Your task to perform on an android device: change the upload size in google photos Image 0: 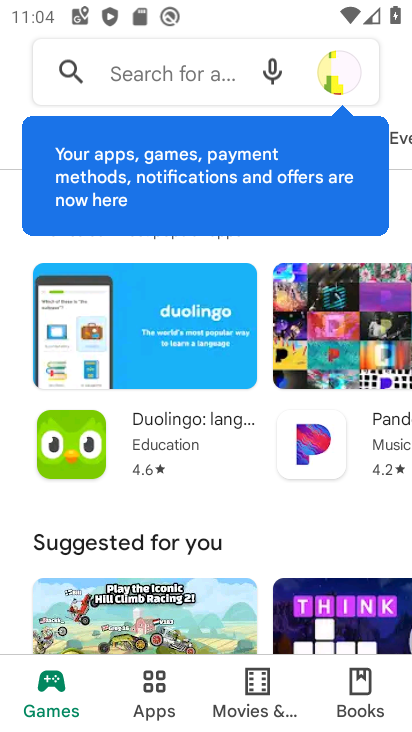
Step 0: press home button
Your task to perform on an android device: change the upload size in google photos Image 1: 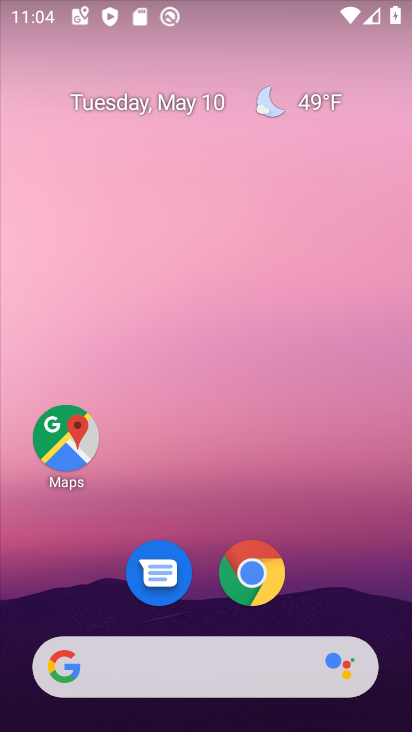
Step 1: drag from (208, 720) to (216, 196)
Your task to perform on an android device: change the upload size in google photos Image 2: 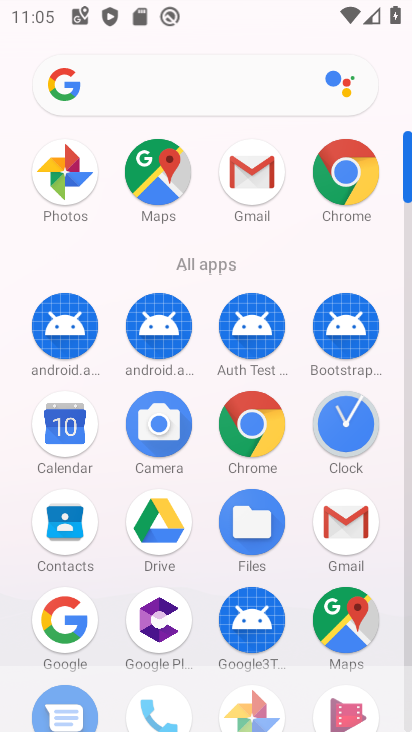
Step 2: click (59, 170)
Your task to perform on an android device: change the upload size in google photos Image 3: 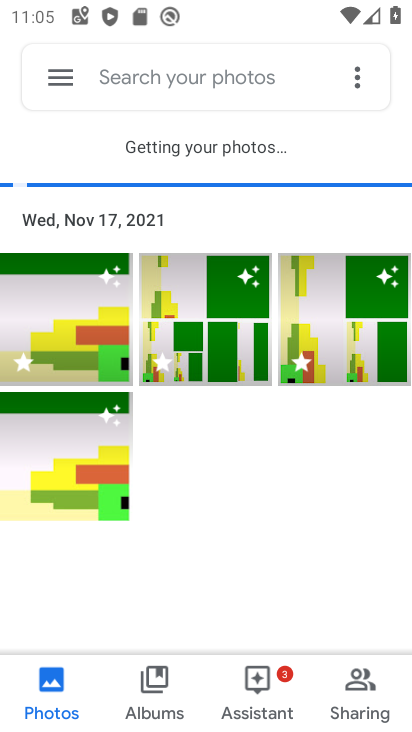
Step 3: click (56, 73)
Your task to perform on an android device: change the upload size in google photos Image 4: 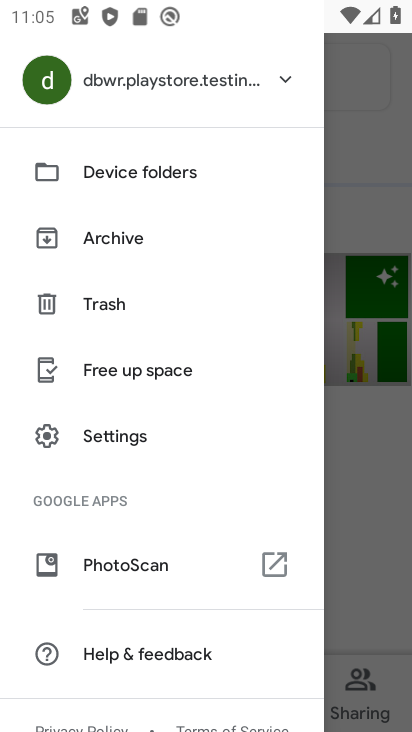
Step 4: click (101, 436)
Your task to perform on an android device: change the upload size in google photos Image 5: 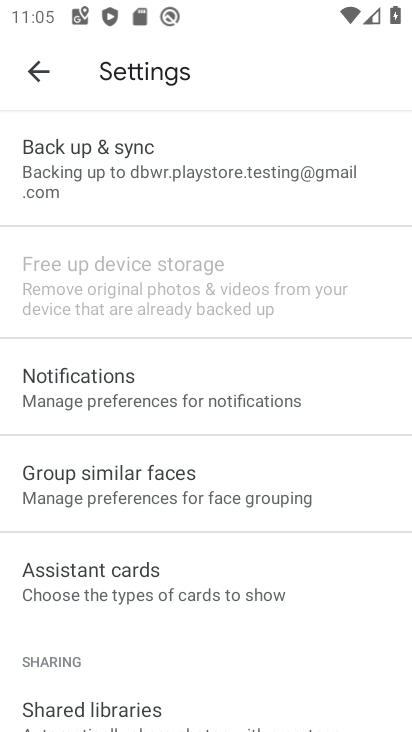
Step 5: click (74, 152)
Your task to perform on an android device: change the upload size in google photos Image 6: 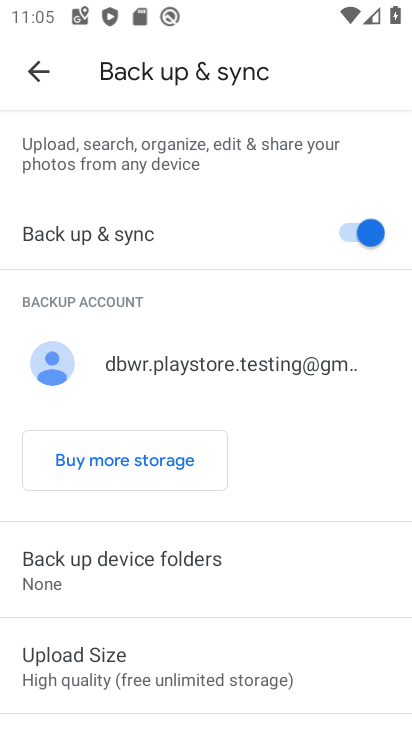
Step 6: click (93, 667)
Your task to perform on an android device: change the upload size in google photos Image 7: 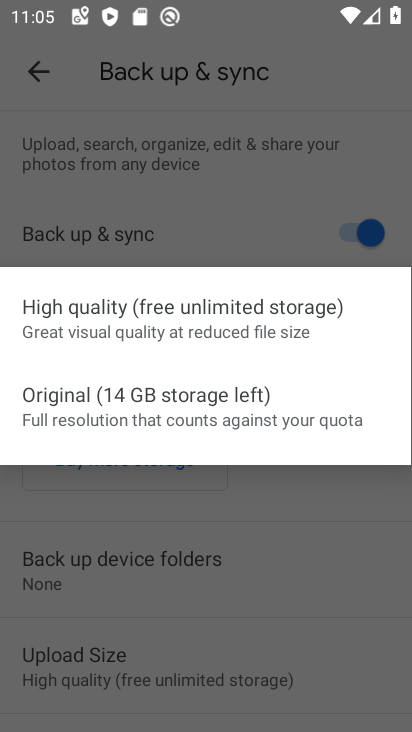
Step 7: click (142, 412)
Your task to perform on an android device: change the upload size in google photos Image 8: 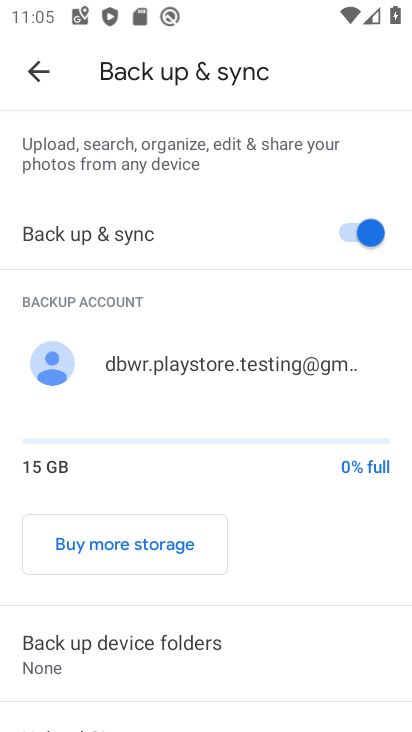
Step 8: task complete